Your task to perform on an android device: show emergency info Image 0: 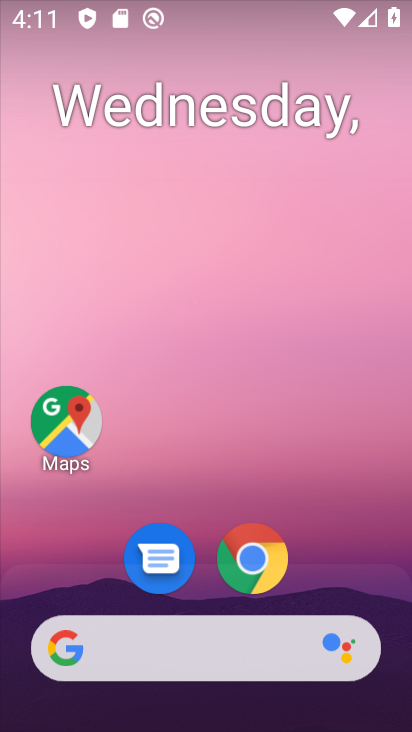
Step 0: drag from (337, 582) to (338, 145)
Your task to perform on an android device: show emergency info Image 1: 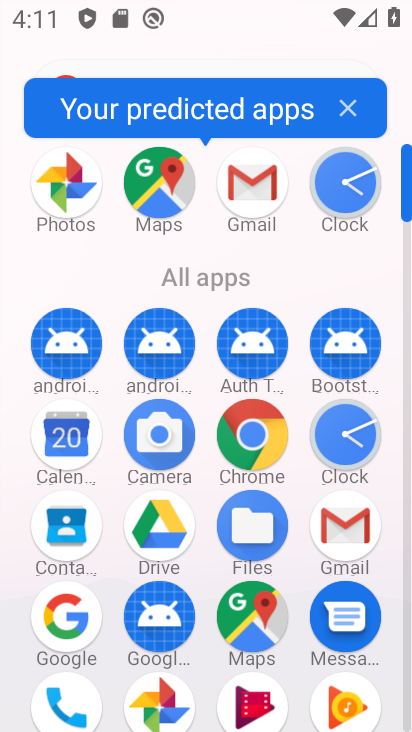
Step 1: drag from (385, 576) to (407, 376)
Your task to perform on an android device: show emergency info Image 2: 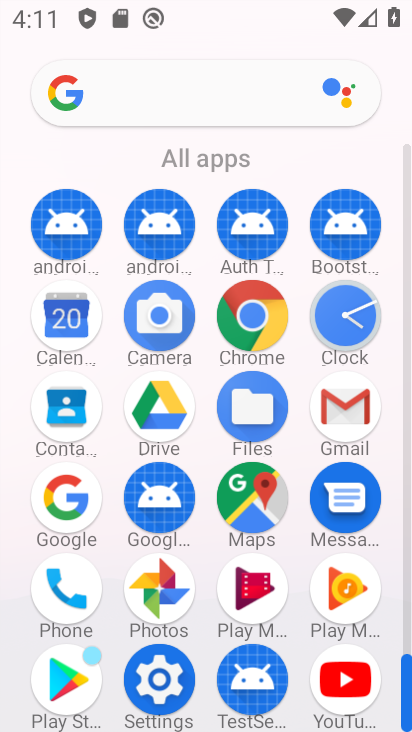
Step 2: click (165, 682)
Your task to perform on an android device: show emergency info Image 3: 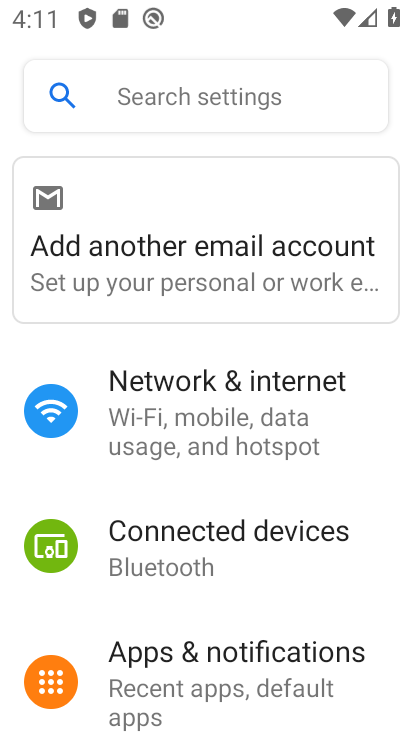
Step 3: drag from (350, 603) to (375, 420)
Your task to perform on an android device: show emergency info Image 4: 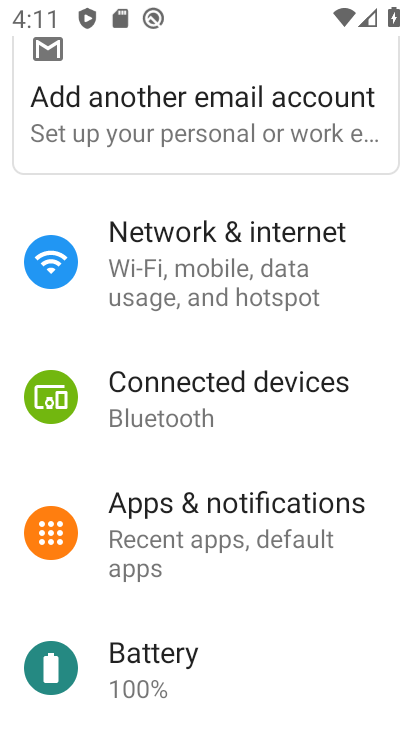
Step 4: drag from (357, 616) to (363, 429)
Your task to perform on an android device: show emergency info Image 5: 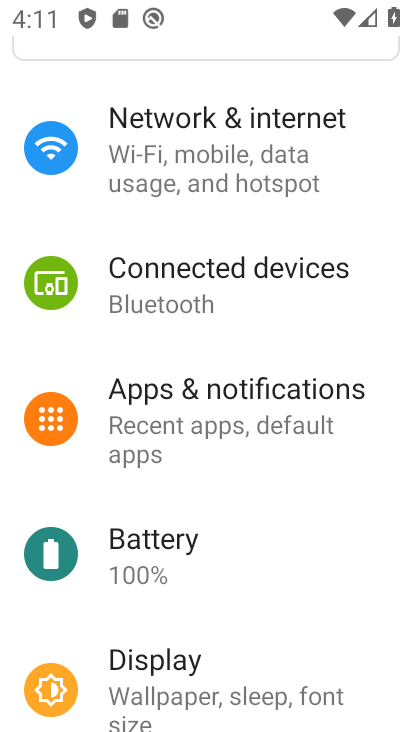
Step 5: drag from (340, 586) to (395, 378)
Your task to perform on an android device: show emergency info Image 6: 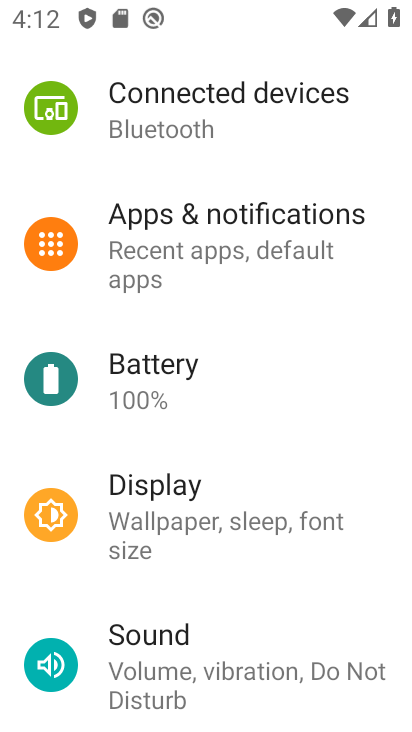
Step 6: drag from (340, 526) to (340, 414)
Your task to perform on an android device: show emergency info Image 7: 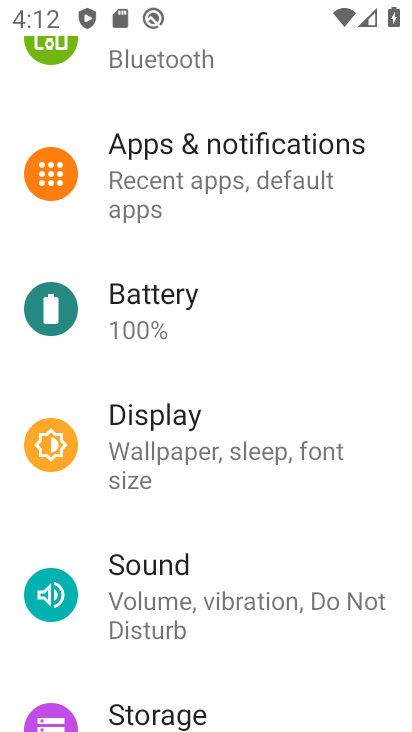
Step 7: drag from (328, 660) to (359, 479)
Your task to perform on an android device: show emergency info Image 8: 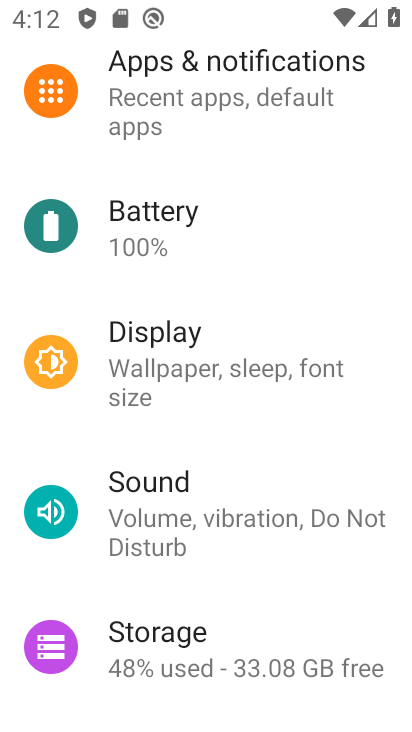
Step 8: drag from (326, 584) to (346, 383)
Your task to perform on an android device: show emergency info Image 9: 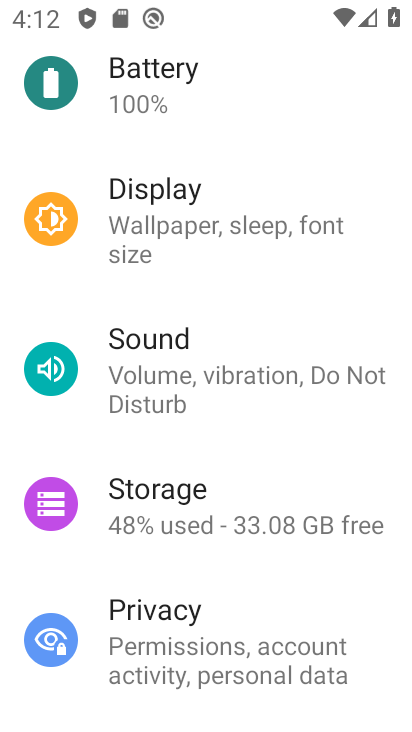
Step 9: drag from (308, 524) to (348, 390)
Your task to perform on an android device: show emergency info Image 10: 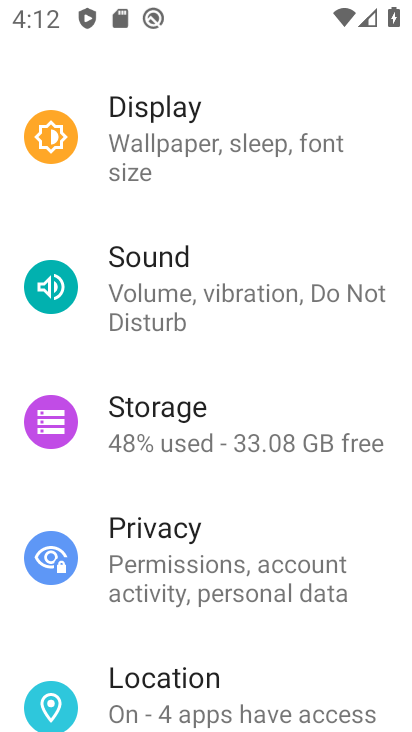
Step 10: drag from (336, 608) to (361, 380)
Your task to perform on an android device: show emergency info Image 11: 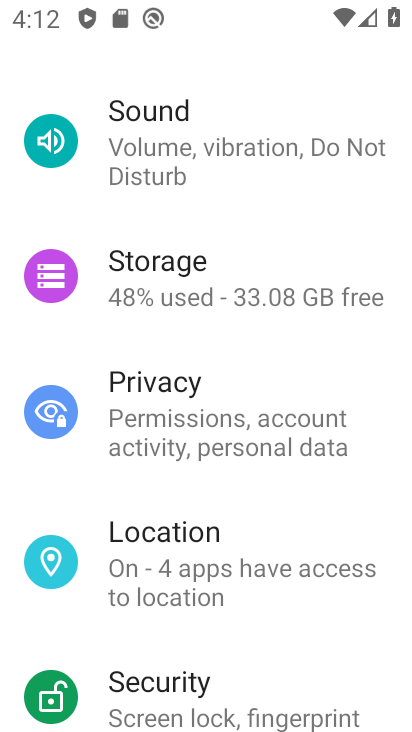
Step 11: drag from (351, 598) to (380, 414)
Your task to perform on an android device: show emergency info Image 12: 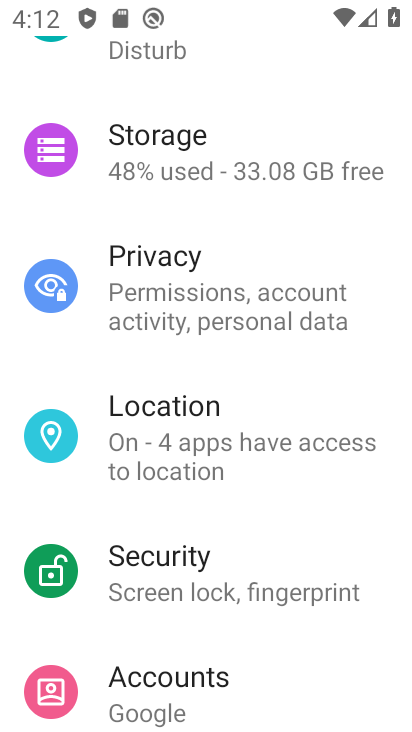
Step 12: drag from (349, 669) to (357, 444)
Your task to perform on an android device: show emergency info Image 13: 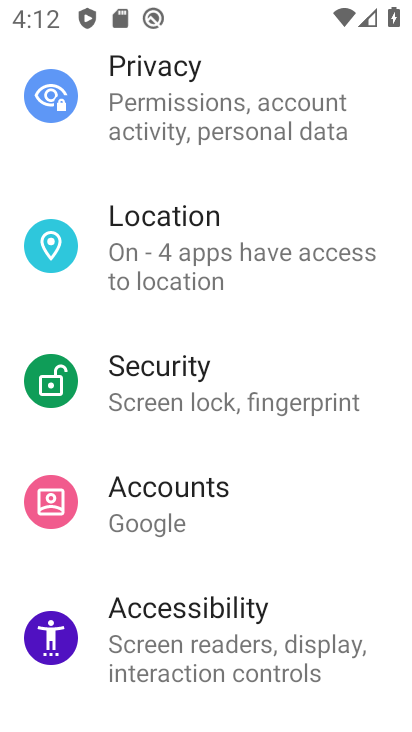
Step 13: drag from (354, 687) to (380, 446)
Your task to perform on an android device: show emergency info Image 14: 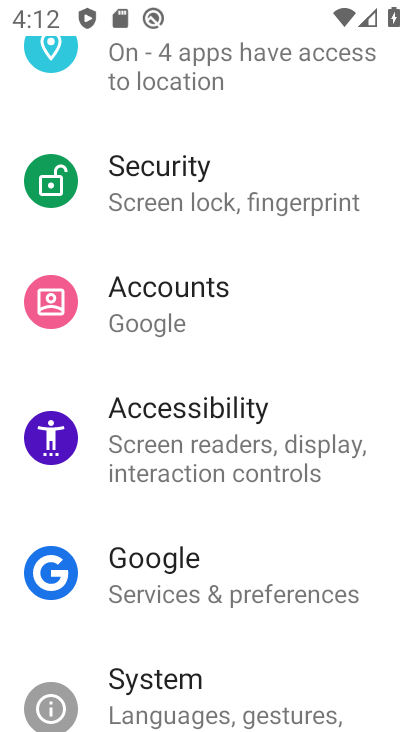
Step 14: drag from (312, 646) to (354, 434)
Your task to perform on an android device: show emergency info Image 15: 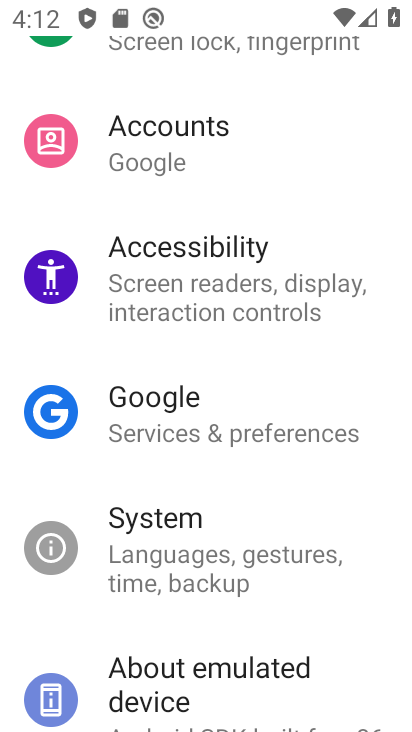
Step 15: drag from (345, 664) to (320, 490)
Your task to perform on an android device: show emergency info Image 16: 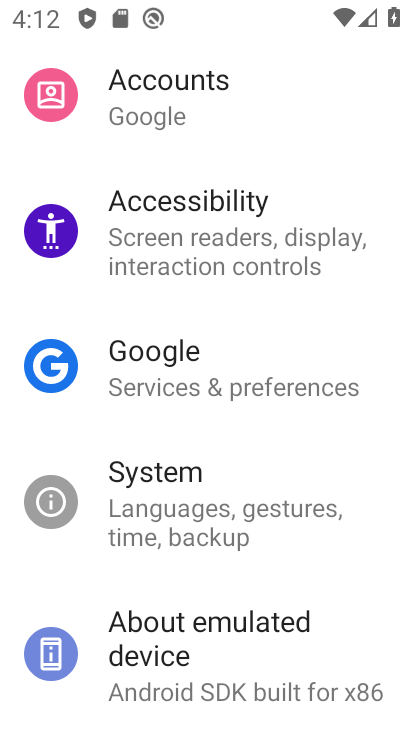
Step 16: click (183, 649)
Your task to perform on an android device: show emergency info Image 17: 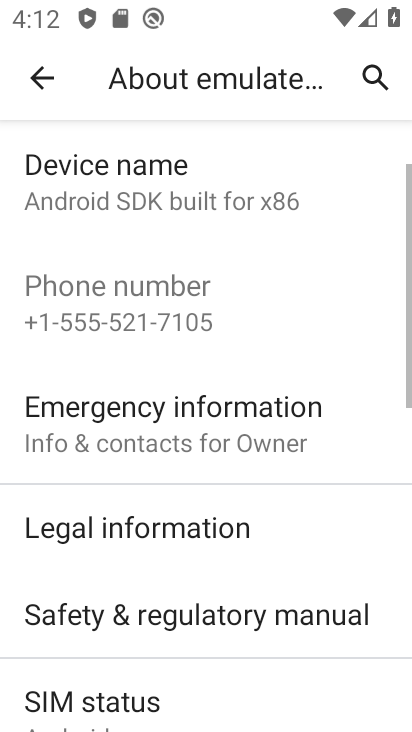
Step 17: click (202, 412)
Your task to perform on an android device: show emergency info Image 18: 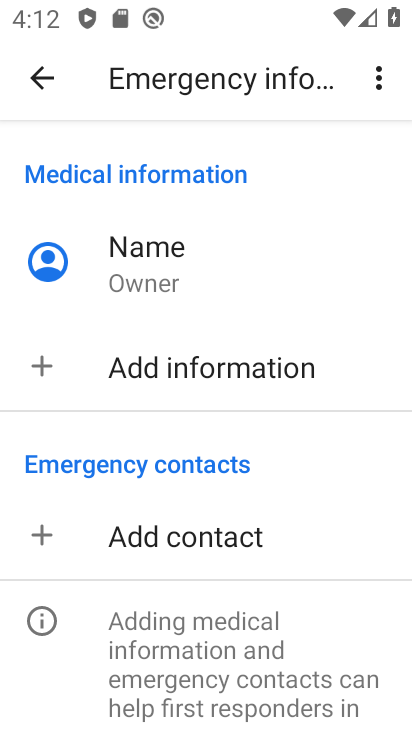
Step 18: task complete